Your task to perform on an android device: set an alarm Image 0: 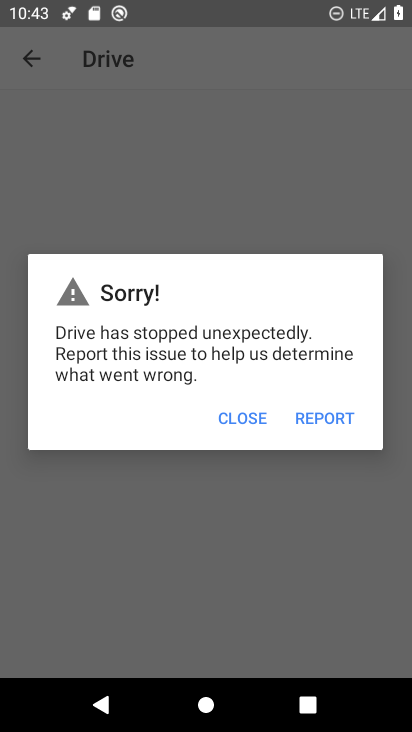
Step 0: press home button
Your task to perform on an android device: set an alarm Image 1: 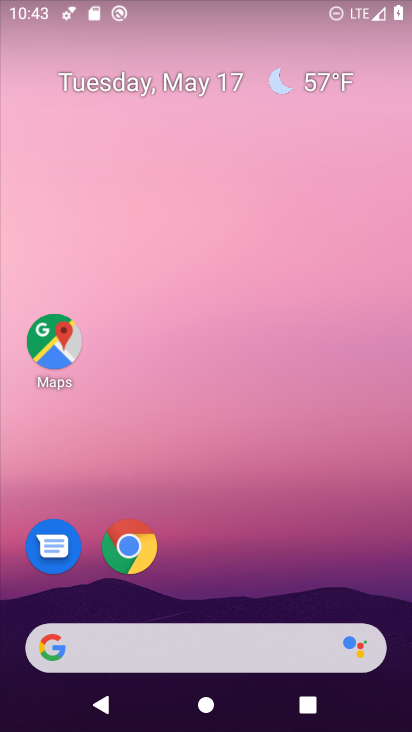
Step 1: drag from (206, 584) to (241, 45)
Your task to perform on an android device: set an alarm Image 2: 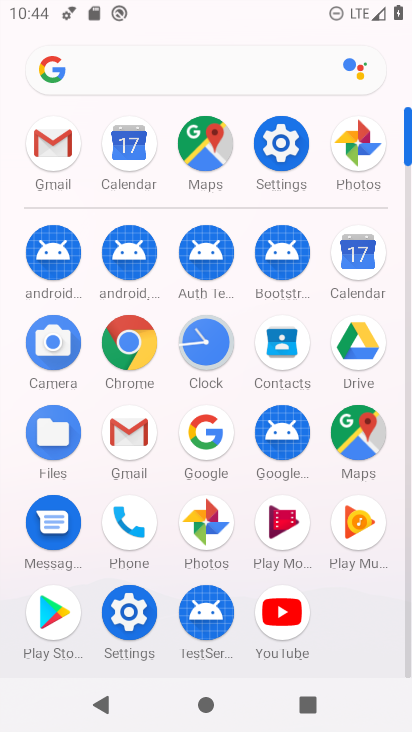
Step 2: click (212, 351)
Your task to perform on an android device: set an alarm Image 3: 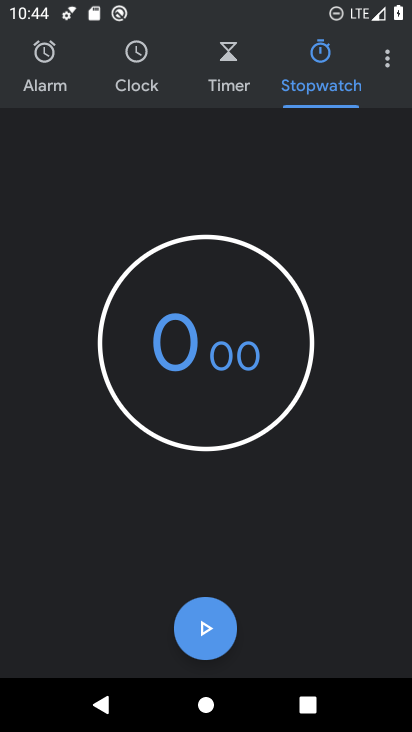
Step 3: click (33, 81)
Your task to perform on an android device: set an alarm Image 4: 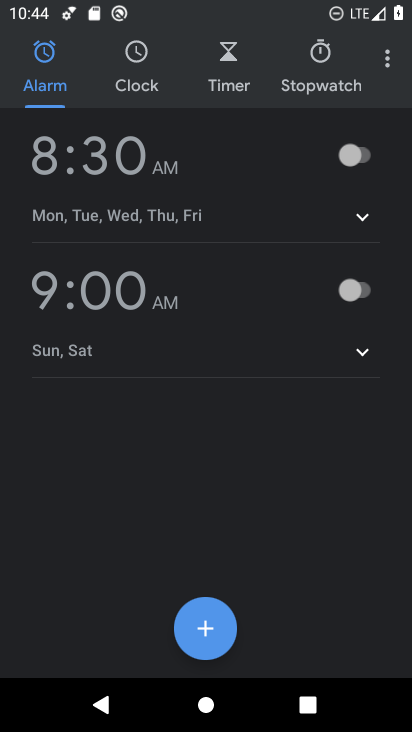
Step 4: click (199, 637)
Your task to perform on an android device: set an alarm Image 5: 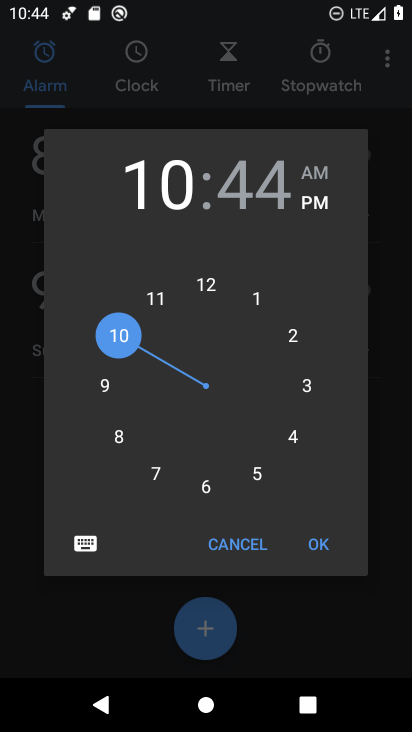
Step 5: click (298, 437)
Your task to perform on an android device: set an alarm Image 6: 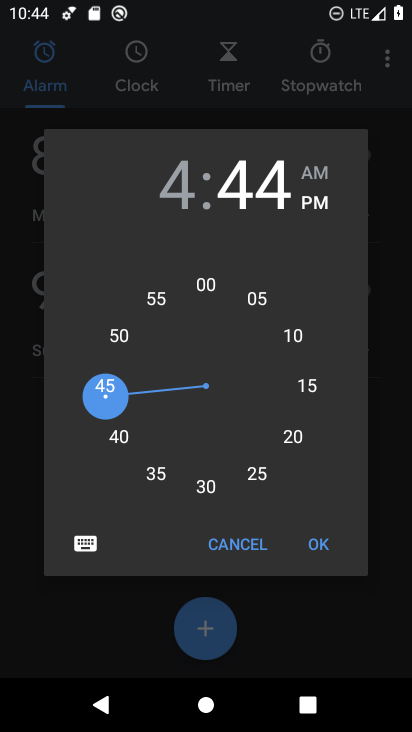
Step 6: click (204, 286)
Your task to perform on an android device: set an alarm Image 7: 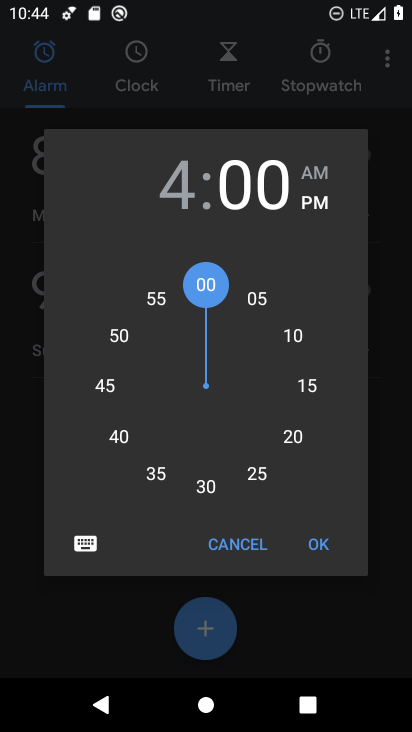
Step 7: click (319, 173)
Your task to perform on an android device: set an alarm Image 8: 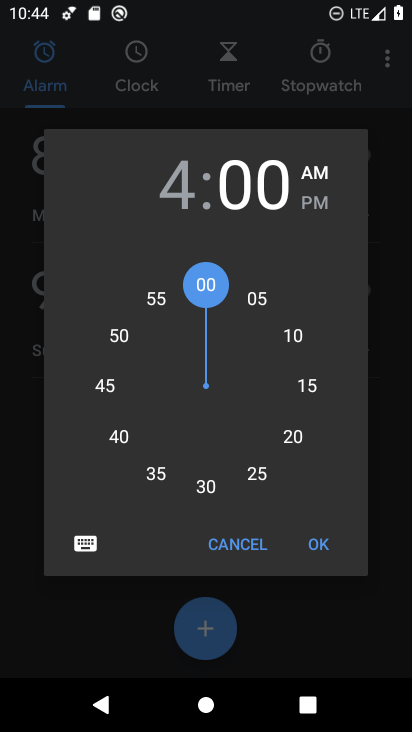
Step 8: click (315, 552)
Your task to perform on an android device: set an alarm Image 9: 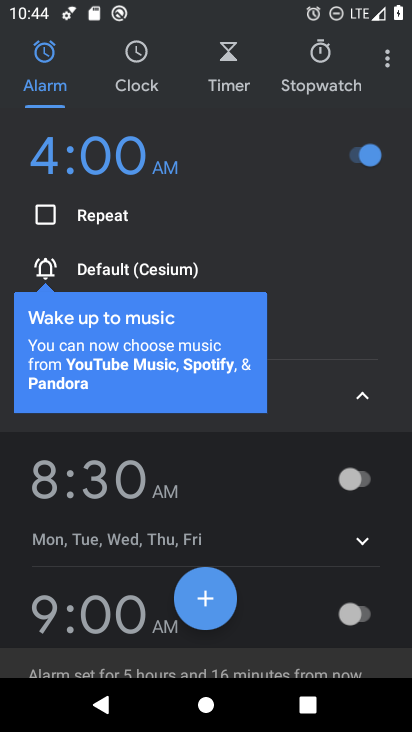
Step 9: task complete